Your task to perform on an android device: read, delete, or share a saved page in the chrome app Image 0: 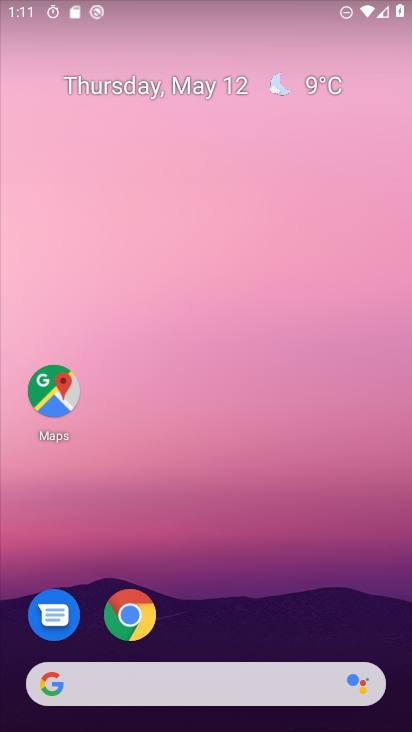
Step 0: drag from (254, 428) to (271, 128)
Your task to perform on an android device: read, delete, or share a saved page in the chrome app Image 1: 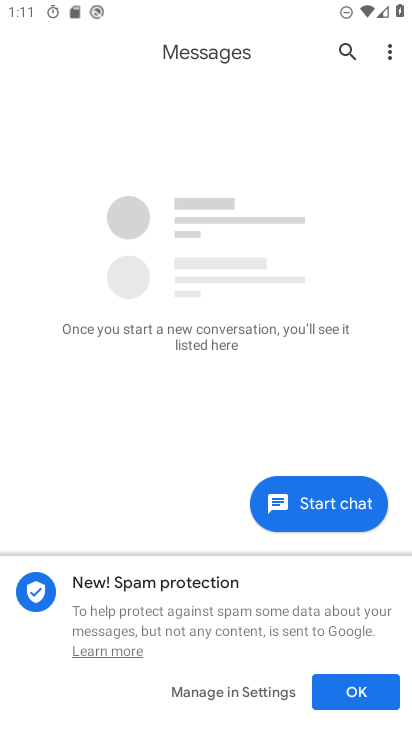
Step 1: press home button
Your task to perform on an android device: read, delete, or share a saved page in the chrome app Image 2: 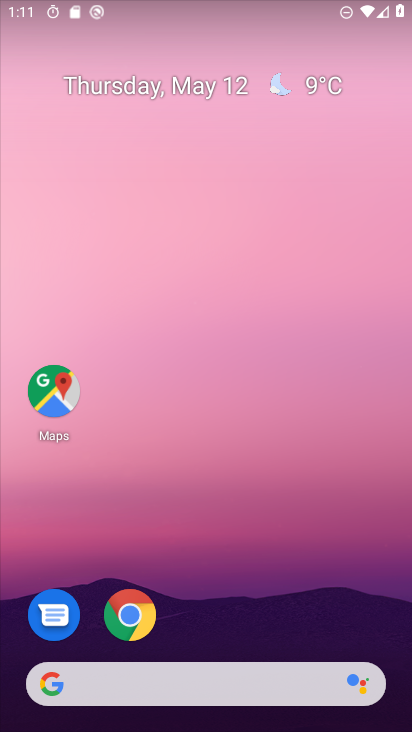
Step 2: click (282, 583)
Your task to perform on an android device: read, delete, or share a saved page in the chrome app Image 3: 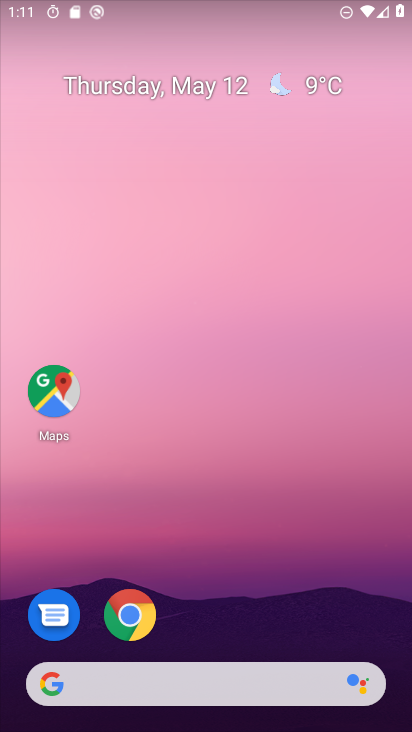
Step 3: drag from (250, 614) to (258, 153)
Your task to perform on an android device: read, delete, or share a saved page in the chrome app Image 4: 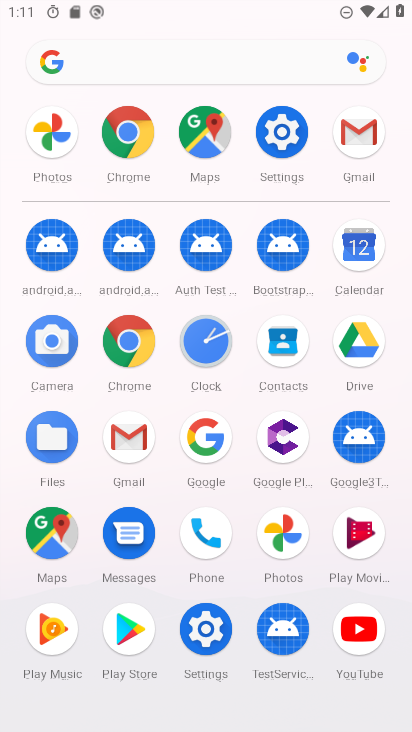
Step 4: click (128, 344)
Your task to perform on an android device: read, delete, or share a saved page in the chrome app Image 5: 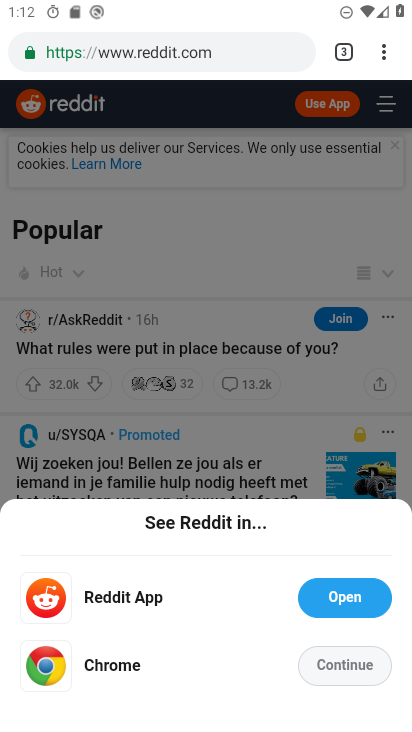
Step 5: task complete